Your task to perform on an android device: Find coffee shops on Maps Image 0: 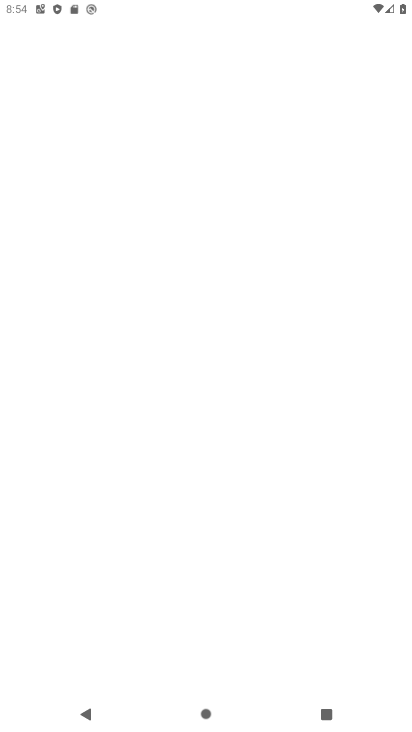
Step 0: press home button
Your task to perform on an android device: Find coffee shops on Maps Image 1: 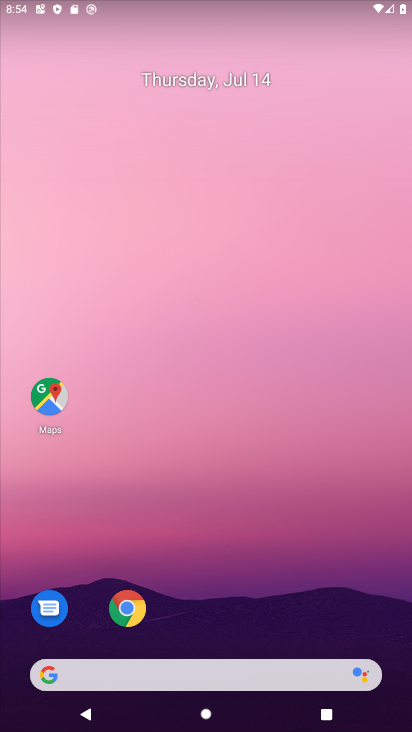
Step 1: drag from (211, 655) to (294, 91)
Your task to perform on an android device: Find coffee shops on Maps Image 2: 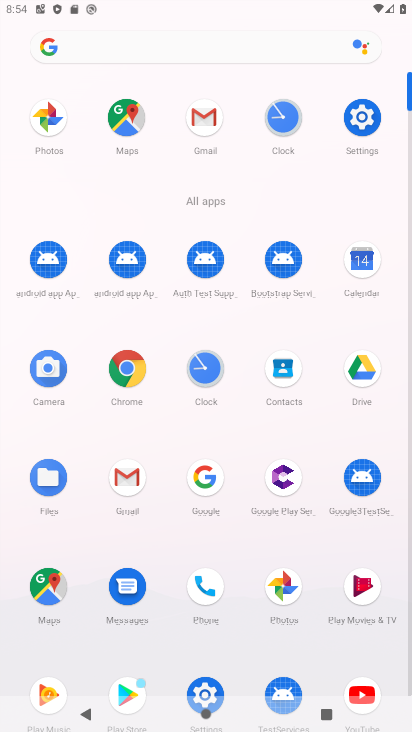
Step 2: click (29, 589)
Your task to perform on an android device: Find coffee shops on Maps Image 3: 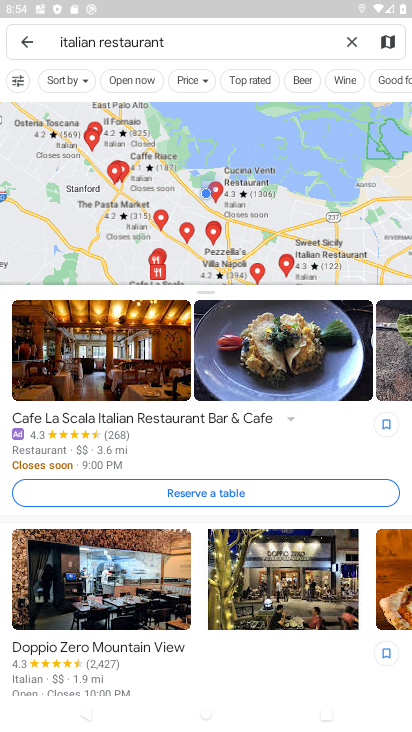
Step 3: click (352, 41)
Your task to perform on an android device: Find coffee shops on Maps Image 4: 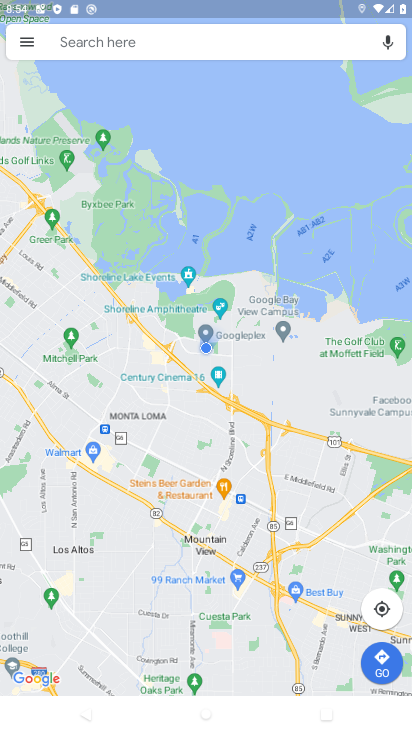
Step 4: click (224, 47)
Your task to perform on an android device: Find coffee shops on Maps Image 5: 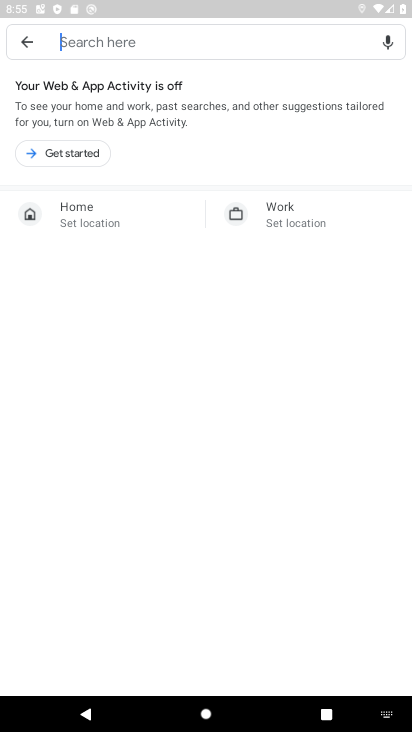
Step 5: type "Coffee shops"
Your task to perform on an android device: Find coffee shops on Maps Image 6: 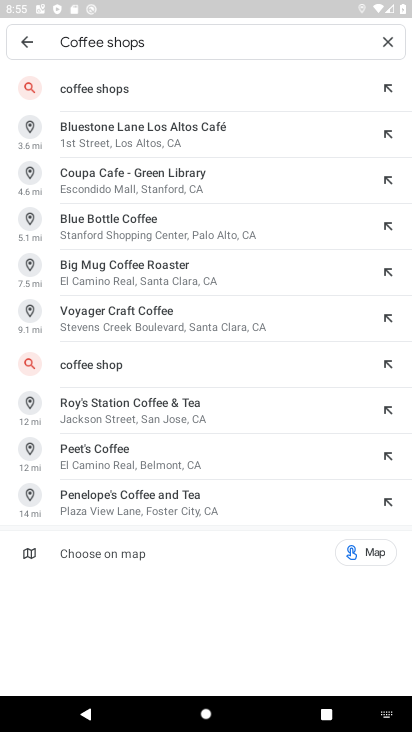
Step 6: click (156, 93)
Your task to perform on an android device: Find coffee shops on Maps Image 7: 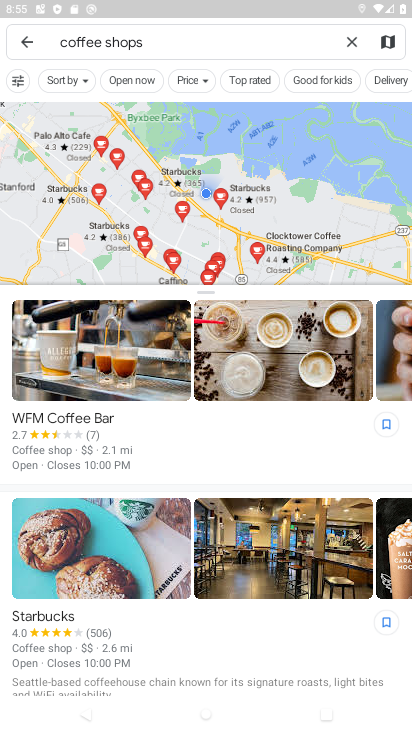
Step 7: task complete